Your task to perform on an android device: Go to Maps Image 0: 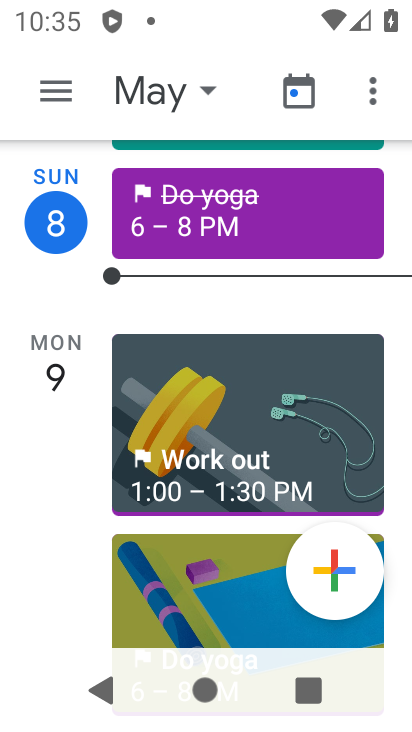
Step 0: press home button
Your task to perform on an android device: Go to Maps Image 1: 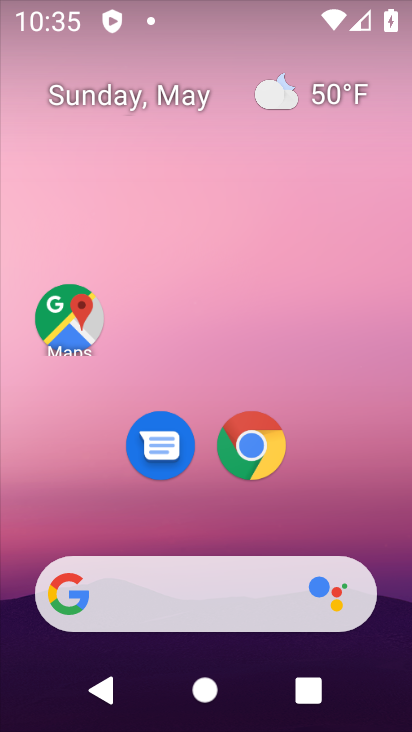
Step 1: click (63, 334)
Your task to perform on an android device: Go to Maps Image 2: 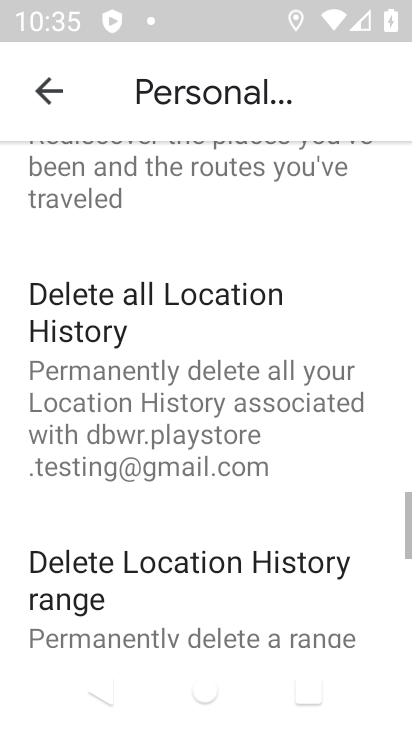
Step 2: click (56, 103)
Your task to perform on an android device: Go to Maps Image 3: 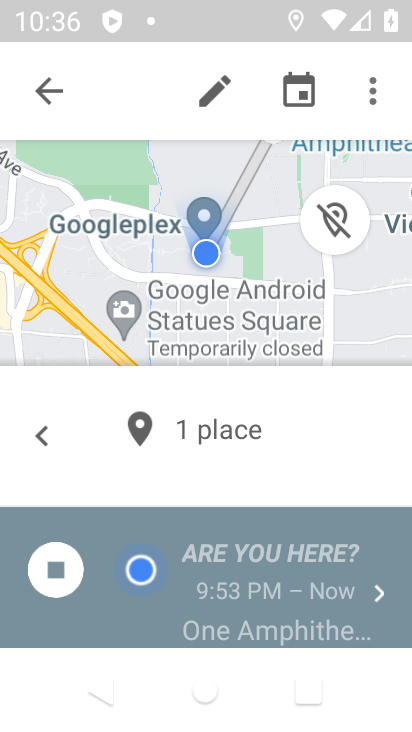
Step 3: click (57, 107)
Your task to perform on an android device: Go to Maps Image 4: 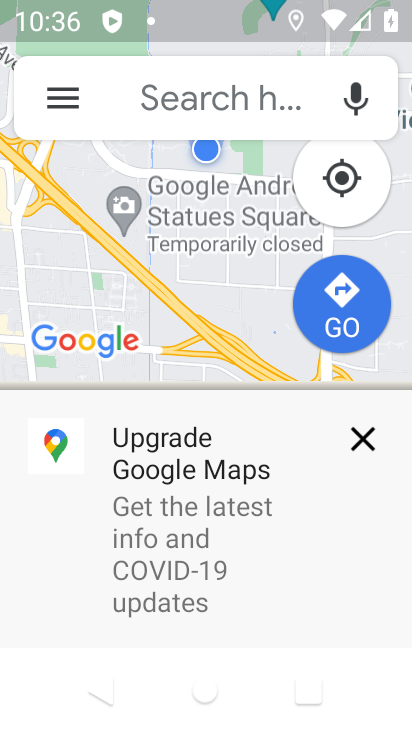
Step 4: task complete